Your task to perform on an android device: set the stopwatch Image 0: 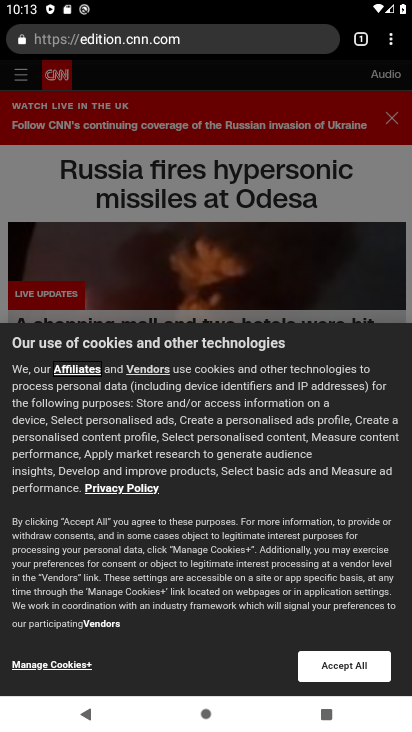
Step 0: press home button
Your task to perform on an android device: set the stopwatch Image 1: 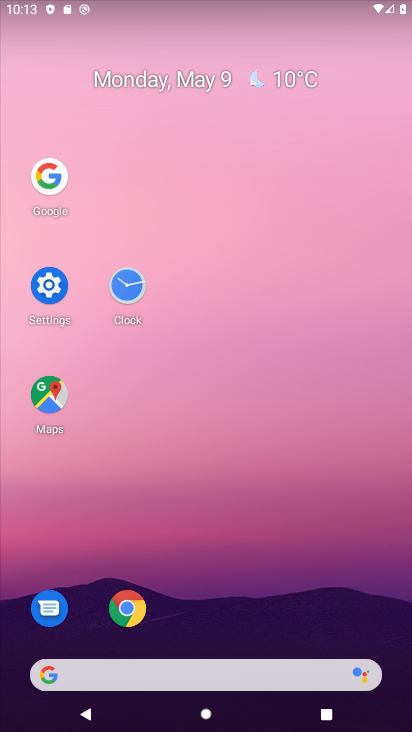
Step 1: click (110, 294)
Your task to perform on an android device: set the stopwatch Image 2: 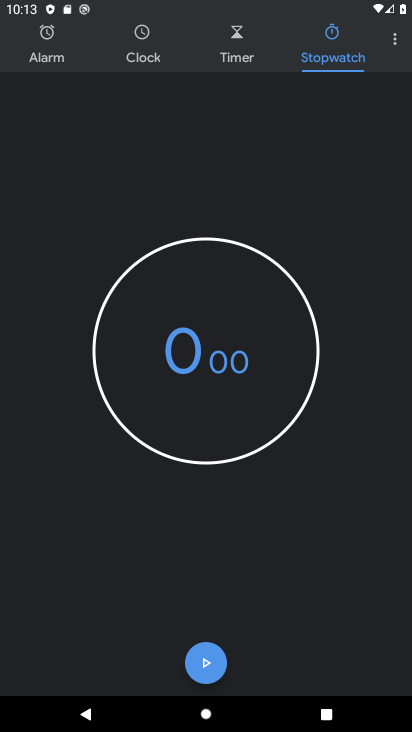
Step 2: click (212, 669)
Your task to perform on an android device: set the stopwatch Image 3: 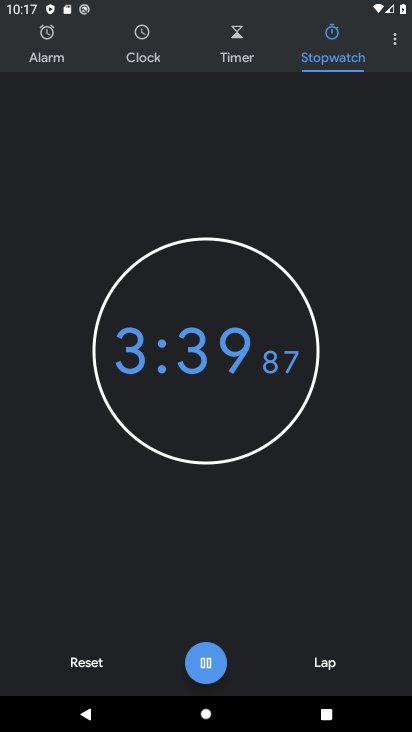
Step 3: task complete